Your task to perform on an android device: Show the shopping cart on newegg.com. Search for "razer blade" on newegg.com, select the first entry, and add it to the cart. Image 0: 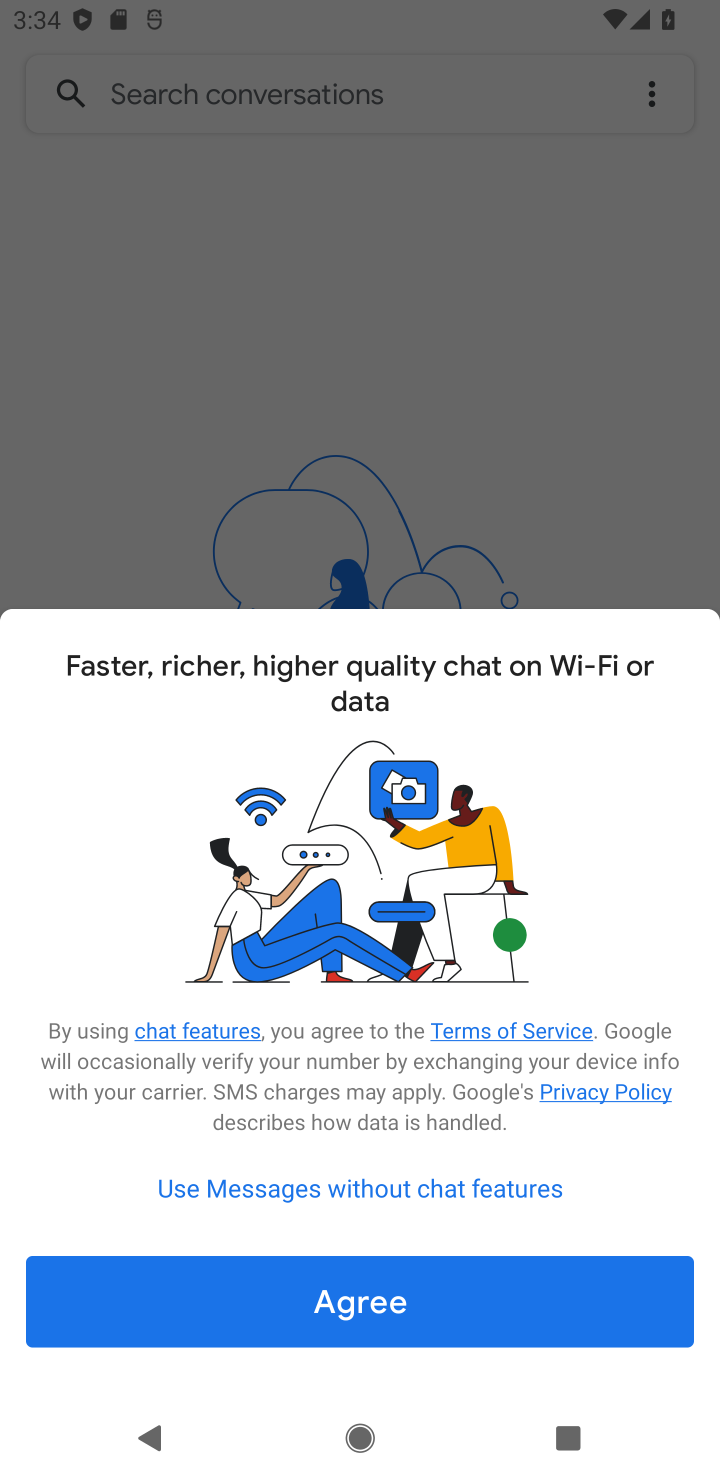
Step 0: press home button
Your task to perform on an android device: Show the shopping cart on newegg.com. Search for "razer blade" on newegg.com, select the first entry, and add it to the cart. Image 1: 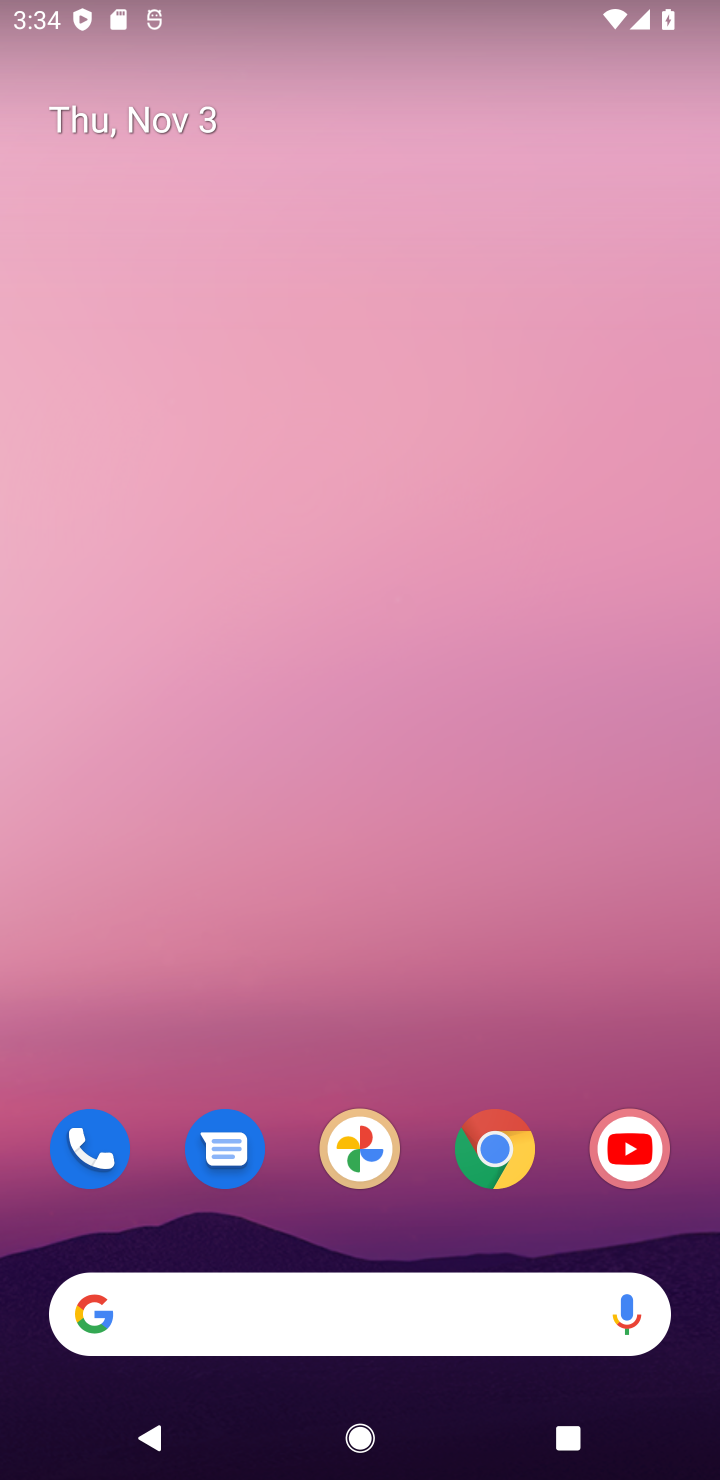
Step 1: click (499, 1146)
Your task to perform on an android device: Show the shopping cart on newegg.com. Search for "razer blade" on newegg.com, select the first entry, and add it to the cart. Image 2: 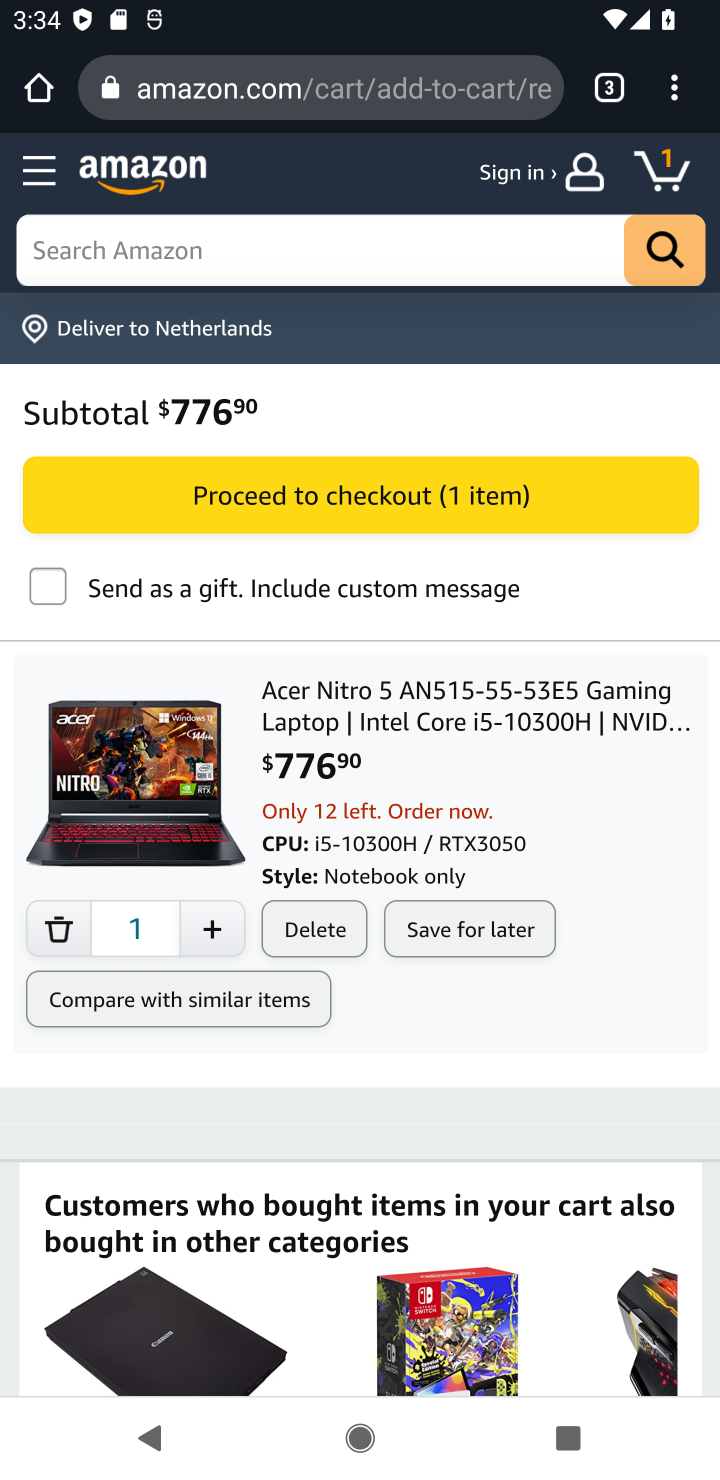
Step 2: click (614, 93)
Your task to perform on an android device: Show the shopping cart on newegg.com. Search for "razer blade" on newegg.com, select the first entry, and add it to the cart. Image 3: 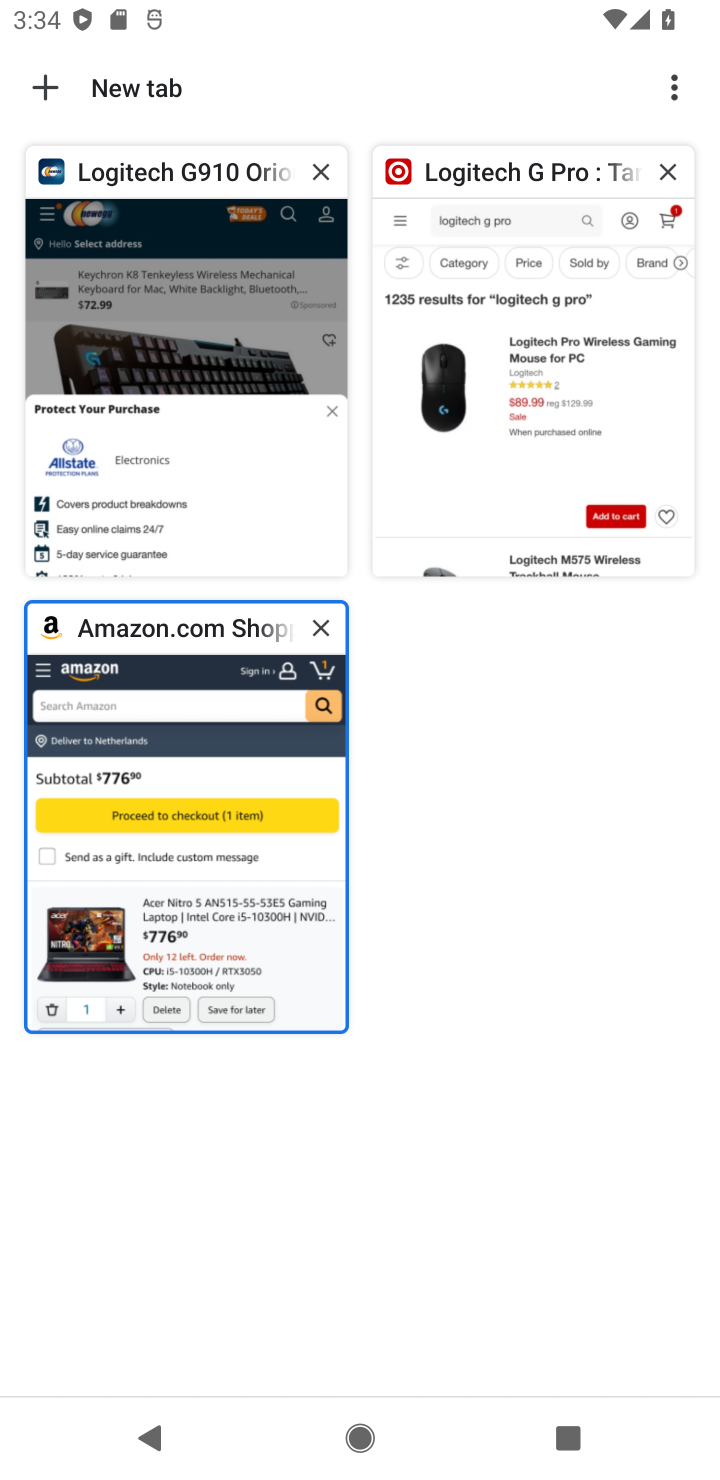
Step 3: click (128, 320)
Your task to perform on an android device: Show the shopping cart on newegg.com. Search for "razer blade" on newegg.com, select the first entry, and add it to the cart. Image 4: 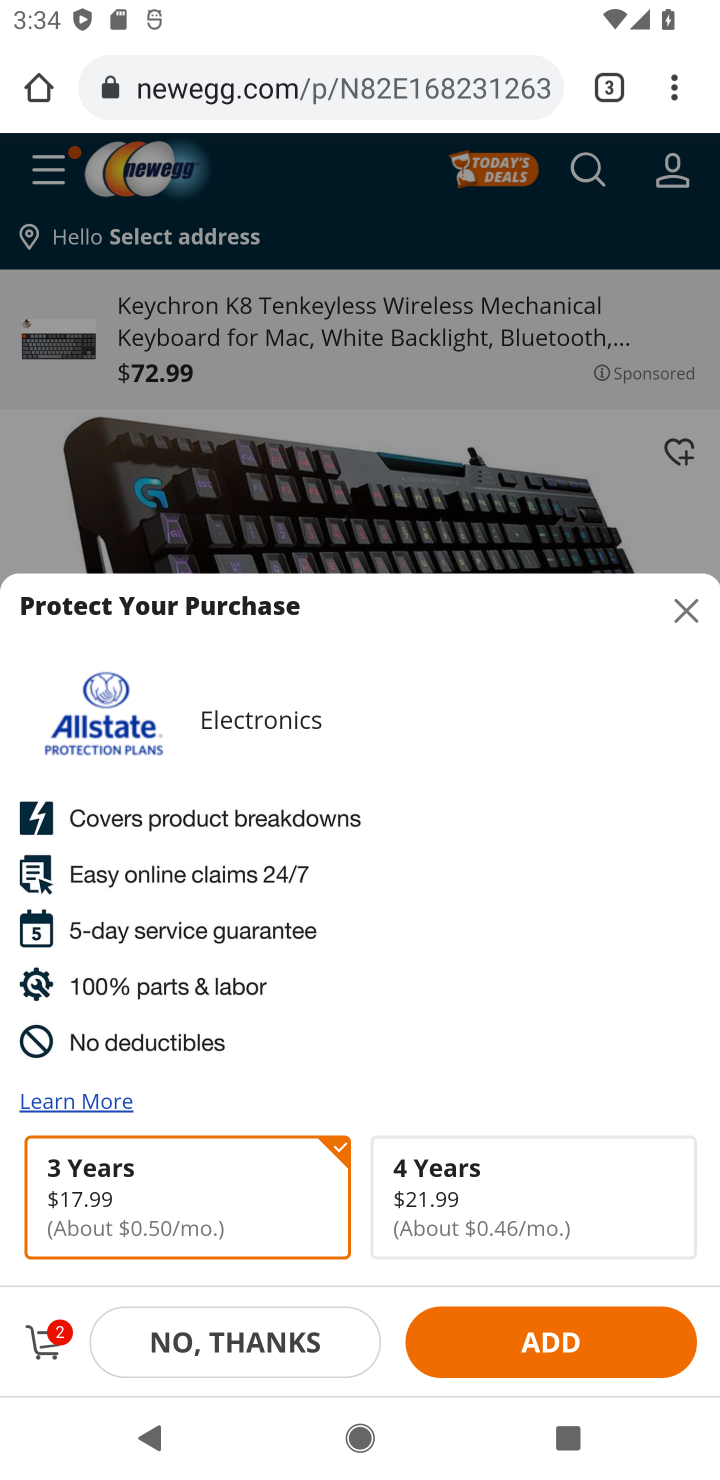
Step 4: click (686, 616)
Your task to perform on an android device: Show the shopping cart on newegg.com. Search for "razer blade" on newegg.com, select the first entry, and add it to the cart. Image 5: 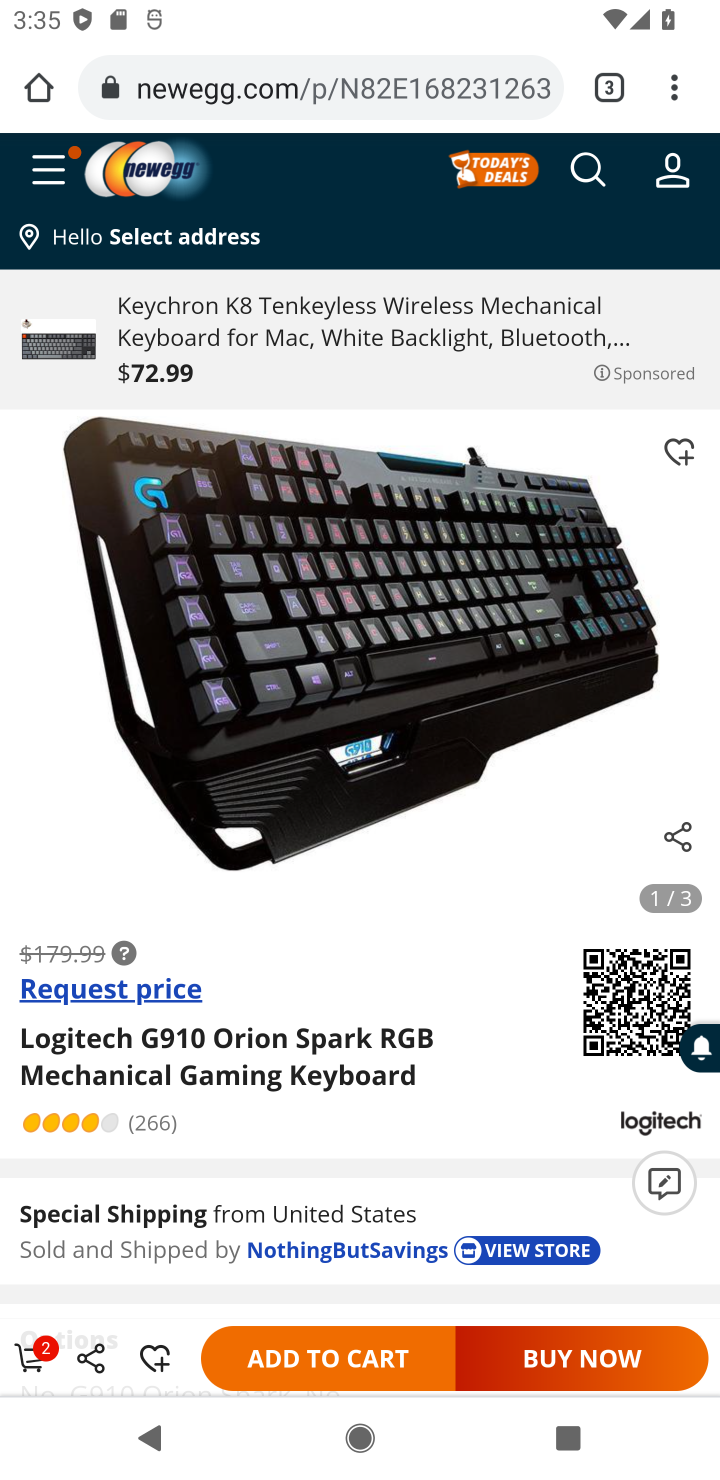
Step 5: click (578, 165)
Your task to perform on an android device: Show the shopping cart on newegg.com. Search for "razer blade" on newegg.com, select the first entry, and add it to the cart. Image 6: 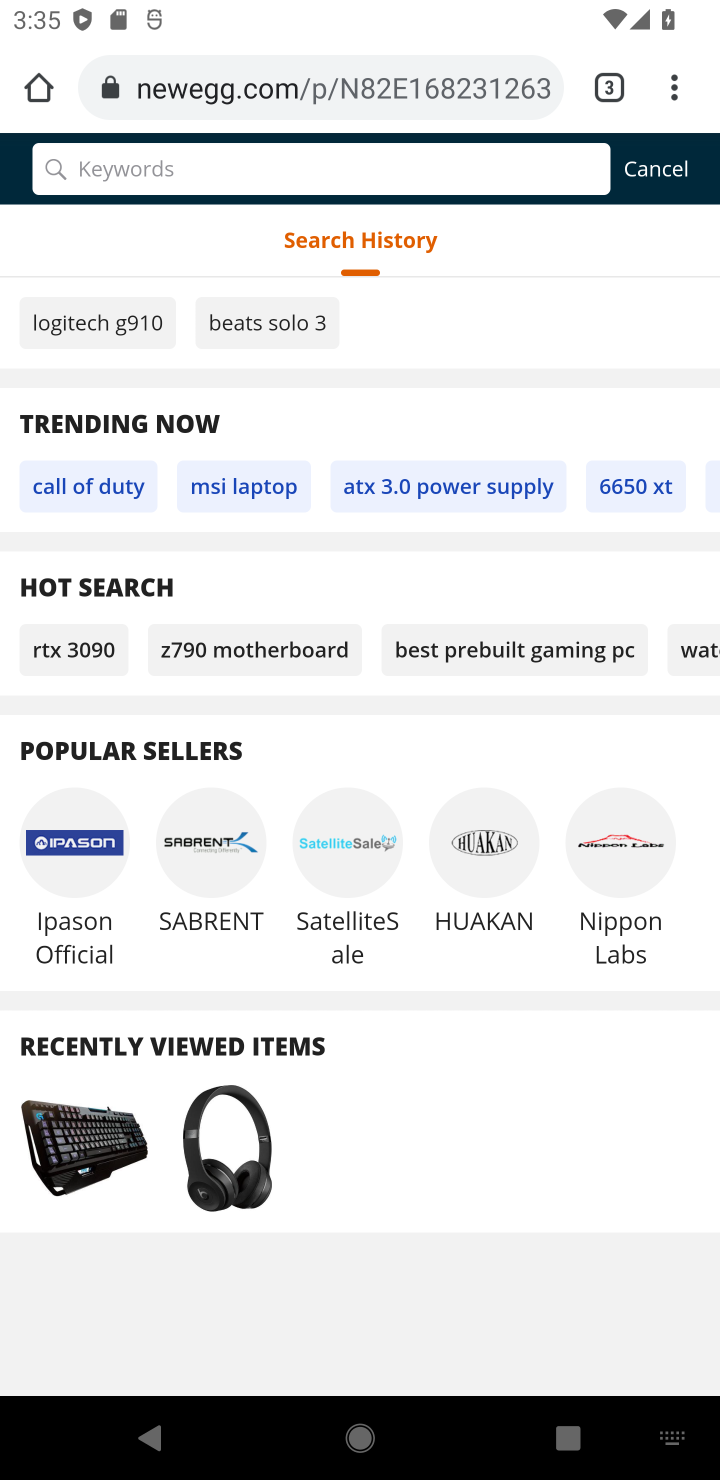
Step 6: type "razer blade"
Your task to perform on an android device: Show the shopping cart on newegg.com. Search for "razer blade" on newegg.com, select the first entry, and add it to the cart. Image 7: 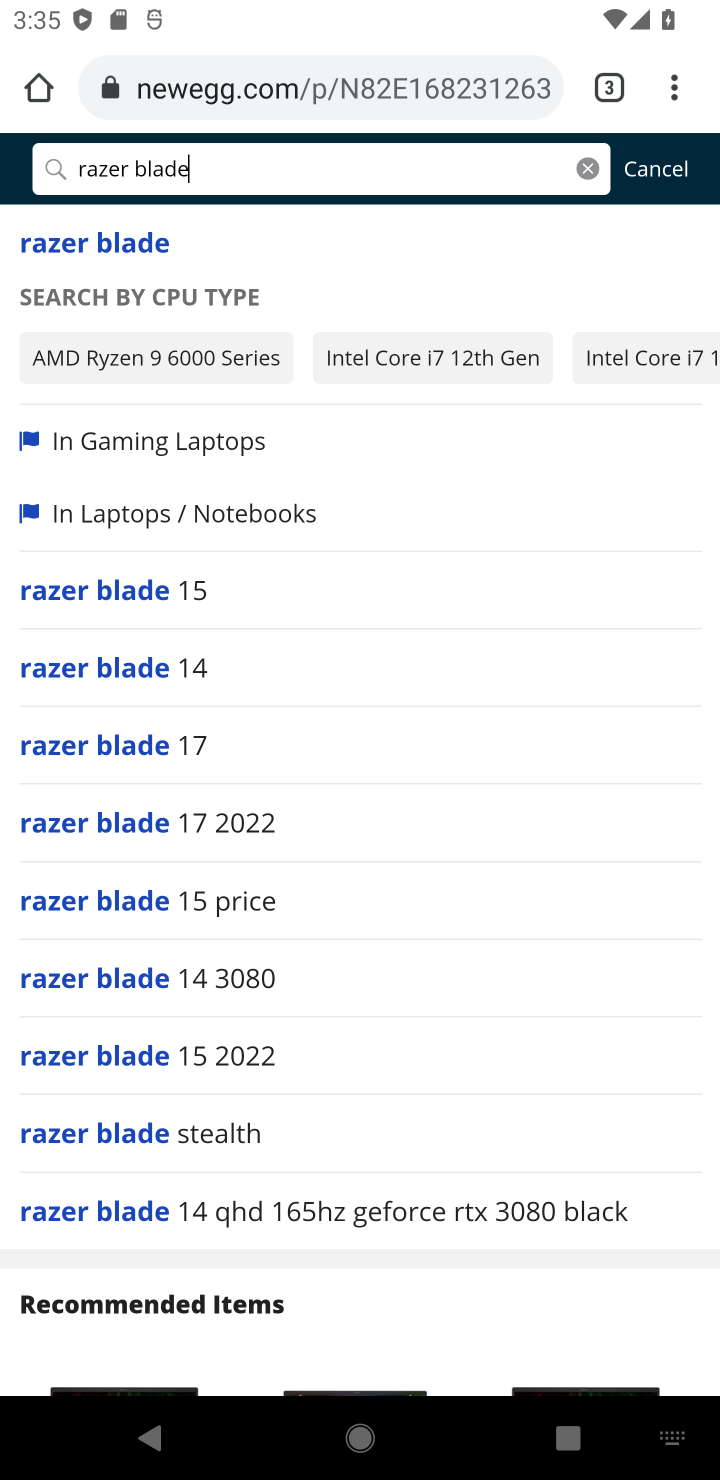
Step 7: click (82, 236)
Your task to perform on an android device: Show the shopping cart on newegg.com. Search for "razer blade" on newegg.com, select the first entry, and add it to the cart. Image 8: 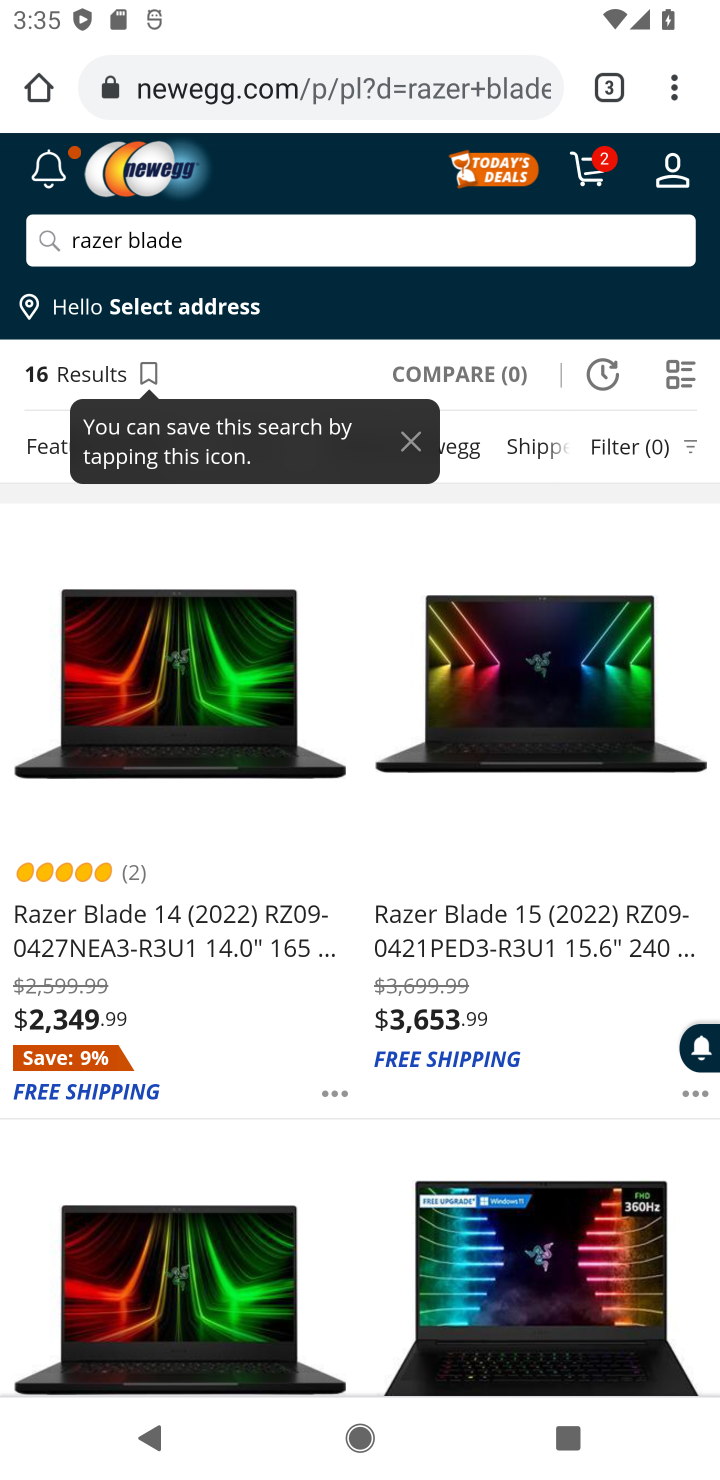
Step 8: click (462, 942)
Your task to perform on an android device: Show the shopping cart on newegg.com. Search for "razer blade" on newegg.com, select the first entry, and add it to the cart. Image 9: 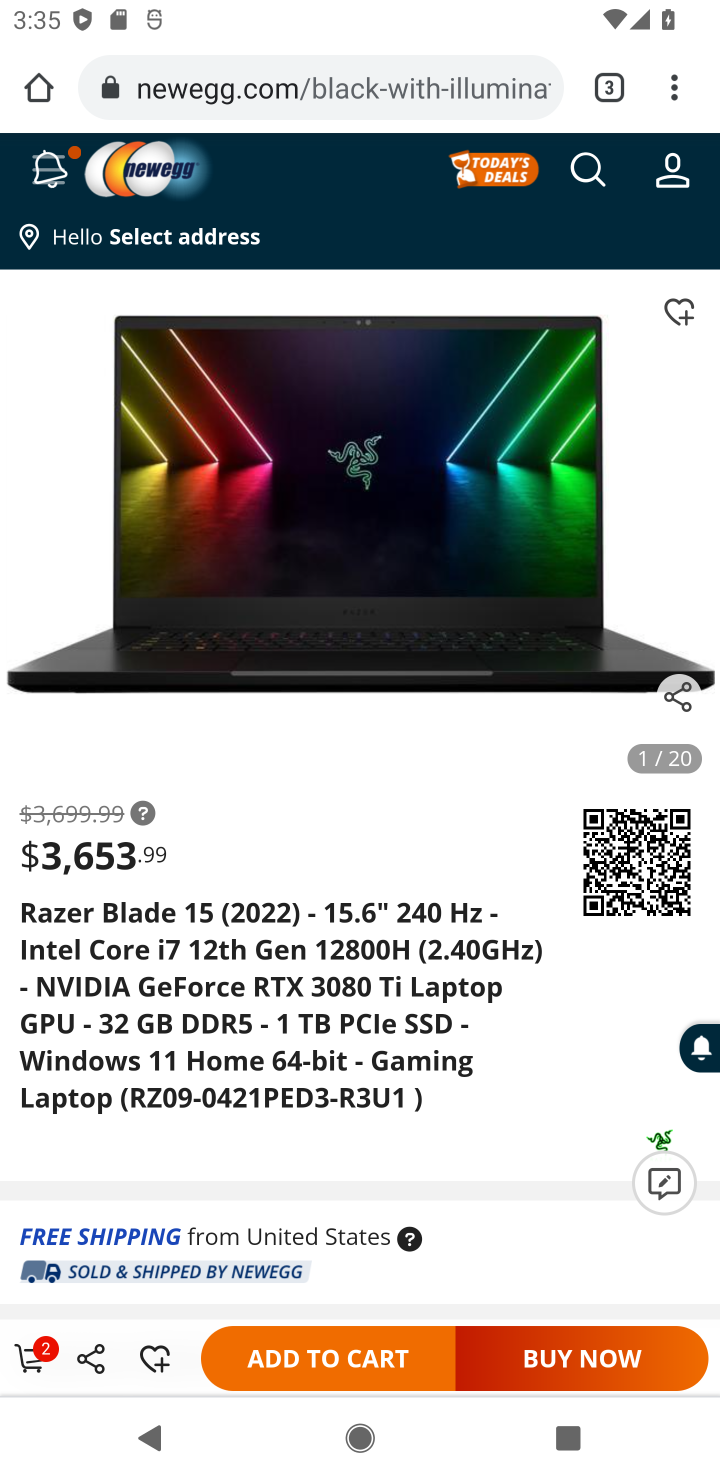
Step 9: click (318, 1356)
Your task to perform on an android device: Show the shopping cart on newegg.com. Search for "razer blade" on newegg.com, select the first entry, and add it to the cart. Image 10: 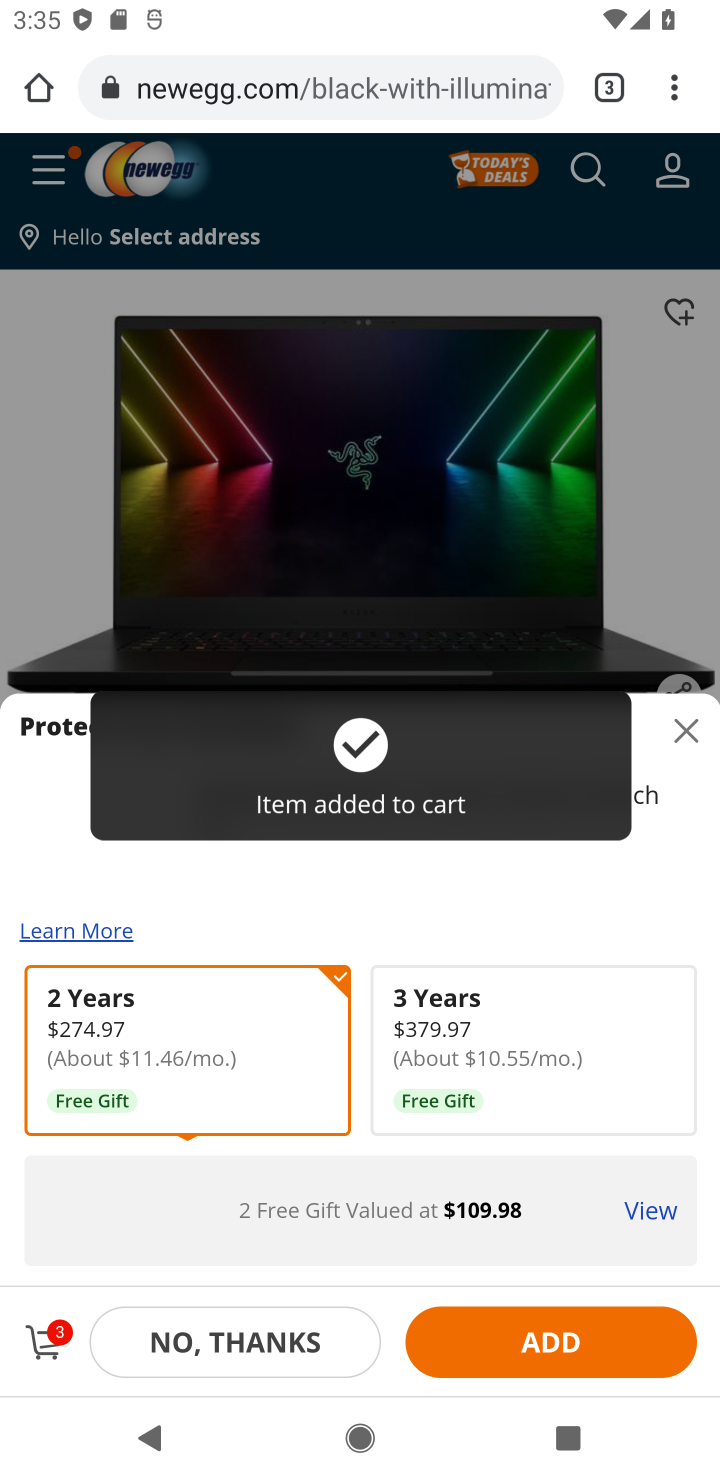
Step 10: task complete